Your task to perform on an android device: change text size in settings app Image 0: 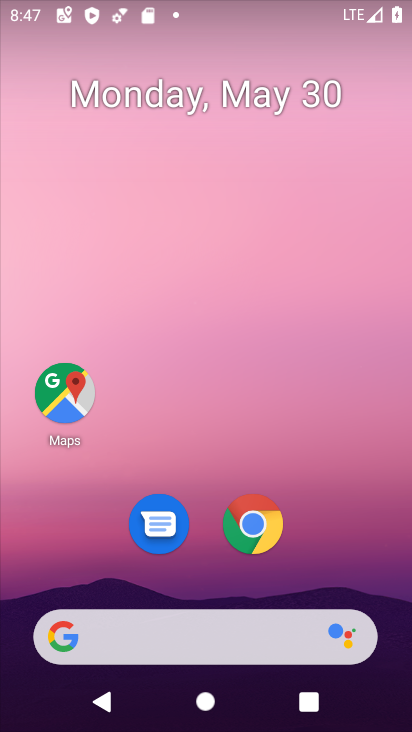
Step 0: drag from (312, 483) to (284, 0)
Your task to perform on an android device: change text size in settings app Image 1: 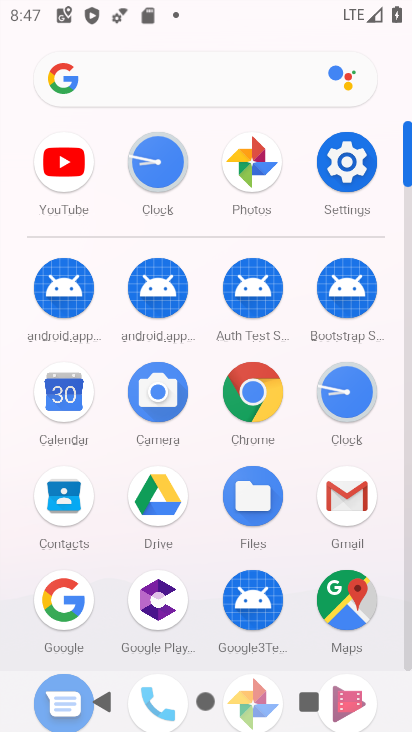
Step 1: click (350, 155)
Your task to perform on an android device: change text size in settings app Image 2: 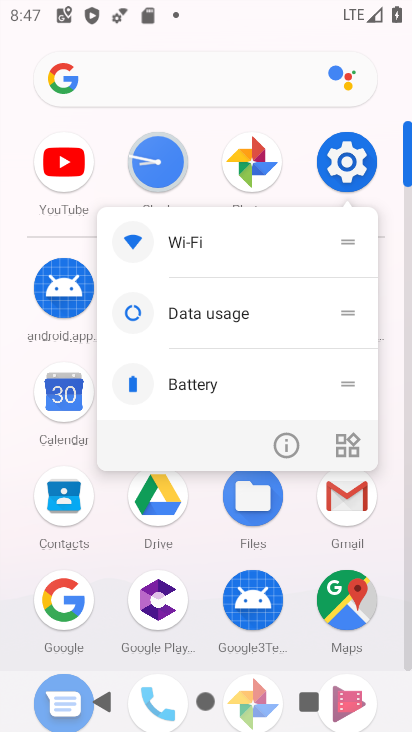
Step 2: click (350, 153)
Your task to perform on an android device: change text size in settings app Image 3: 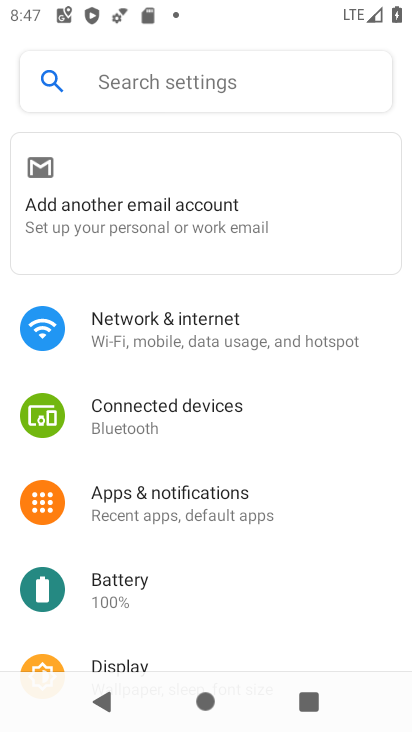
Step 3: drag from (214, 526) to (231, 204)
Your task to perform on an android device: change text size in settings app Image 4: 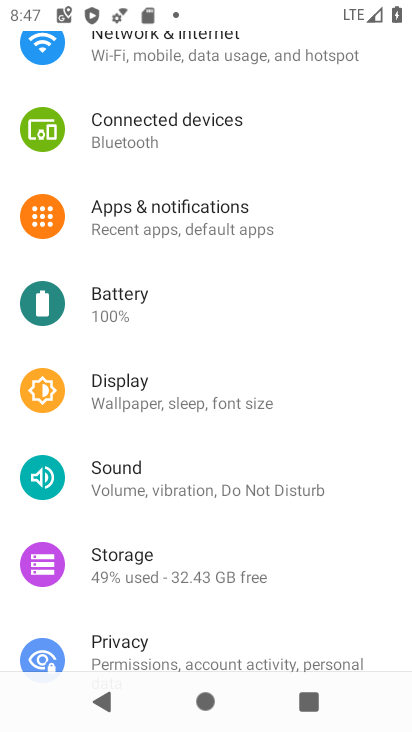
Step 4: click (218, 403)
Your task to perform on an android device: change text size in settings app Image 5: 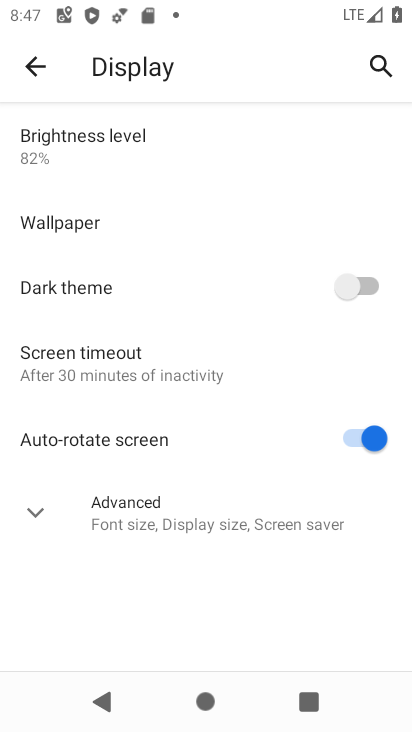
Step 5: click (30, 510)
Your task to perform on an android device: change text size in settings app Image 6: 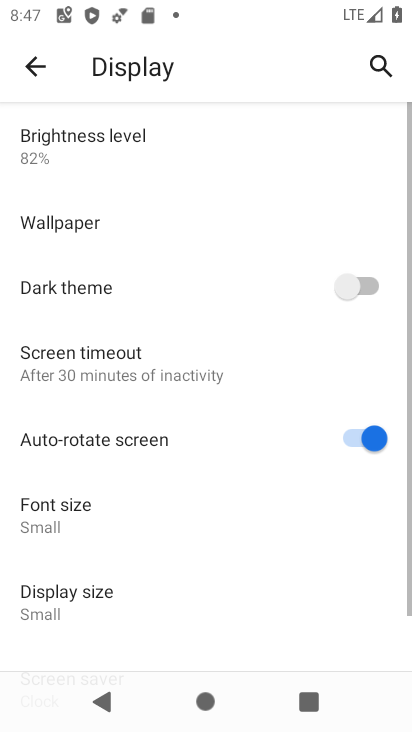
Step 6: drag from (197, 475) to (219, 300)
Your task to perform on an android device: change text size in settings app Image 7: 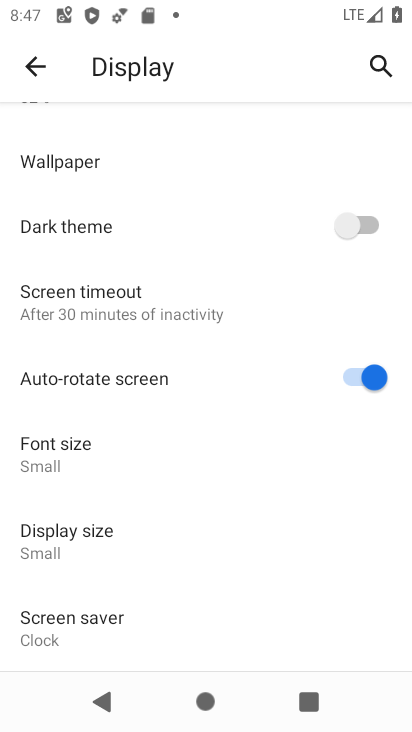
Step 7: click (108, 458)
Your task to perform on an android device: change text size in settings app Image 8: 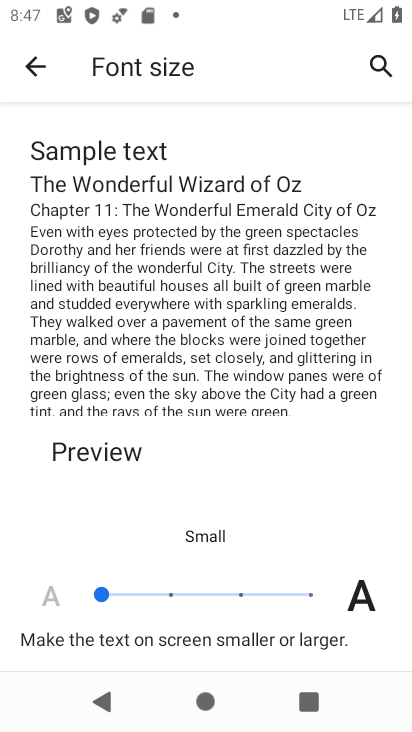
Step 8: click (166, 592)
Your task to perform on an android device: change text size in settings app Image 9: 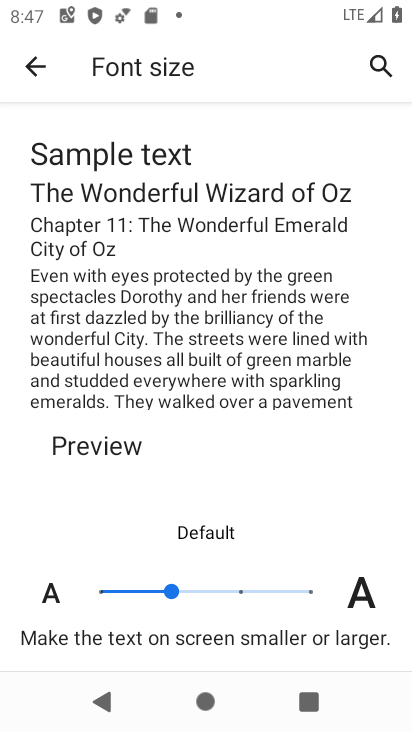
Step 9: task complete